Your task to perform on an android device: Check the weather Image 0: 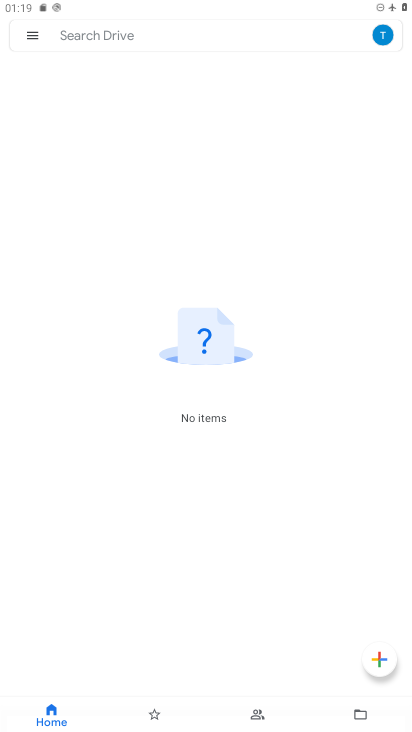
Step 0: press home button
Your task to perform on an android device: Check the weather Image 1: 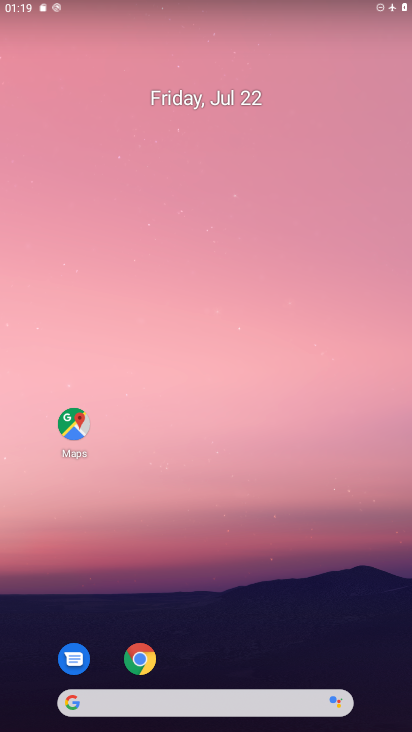
Step 1: drag from (212, 703) to (147, 204)
Your task to perform on an android device: Check the weather Image 2: 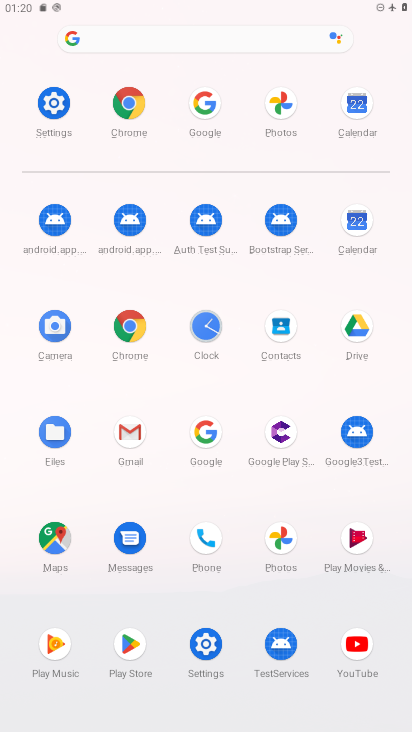
Step 2: click (204, 98)
Your task to perform on an android device: Check the weather Image 3: 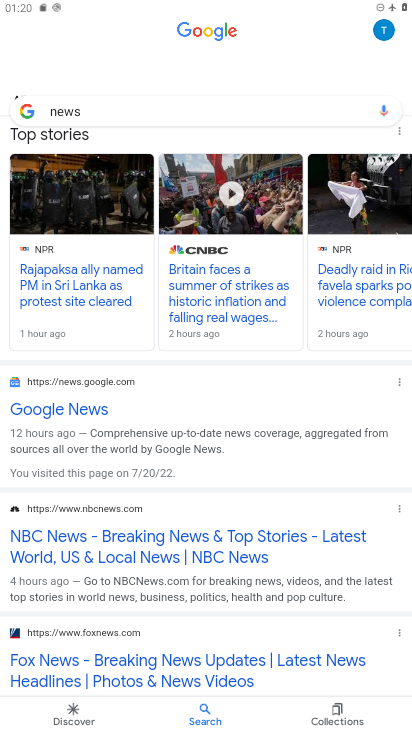
Step 3: click (203, 106)
Your task to perform on an android device: Check the weather Image 4: 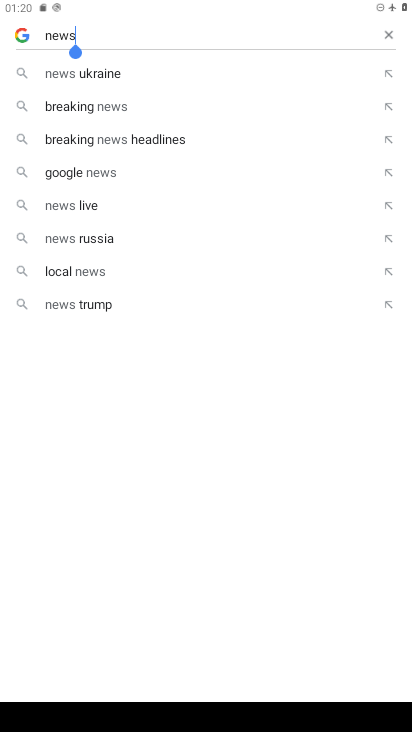
Step 4: click (390, 29)
Your task to perform on an android device: Check the weather Image 5: 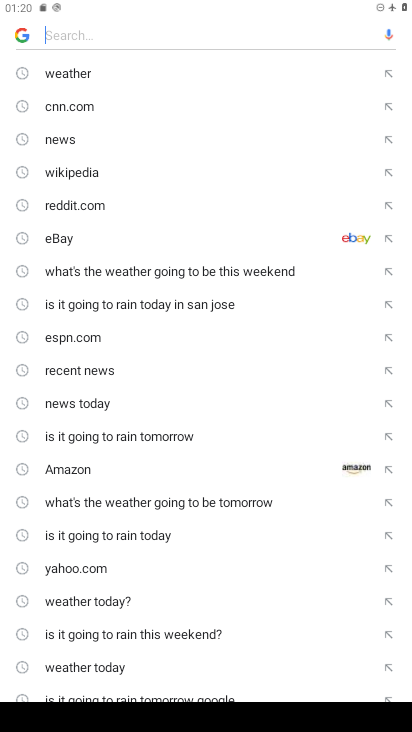
Step 5: click (80, 73)
Your task to perform on an android device: Check the weather Image 6: 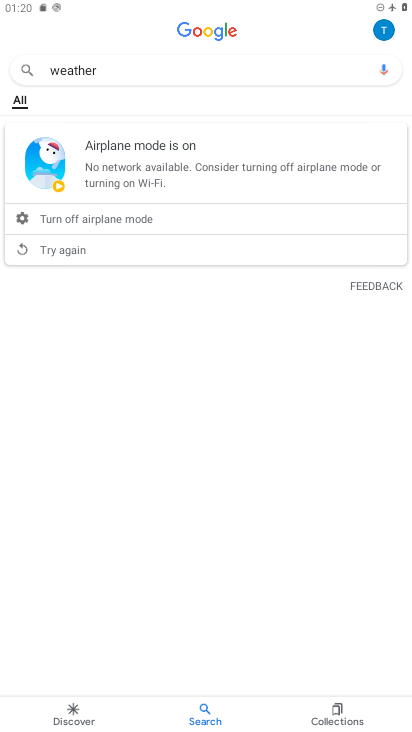
Step 6: task complete